Your task to perform on an android device: Open settings Image 0: 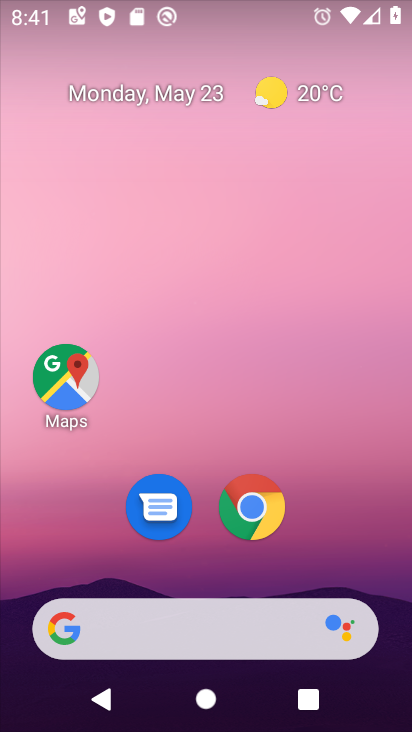
Step 0: drag from (378, 585) to (384, 4)
Your task to perform on an android device: Open settings Image 1: 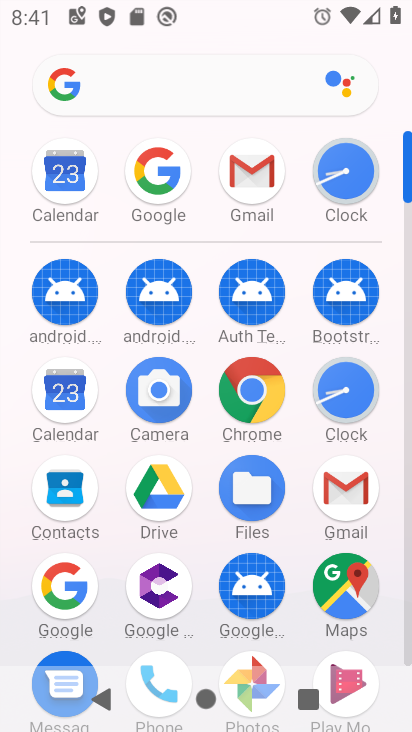
Step 1: click (408, 490)
Your task to perform on an android device: Open settings Image 2: 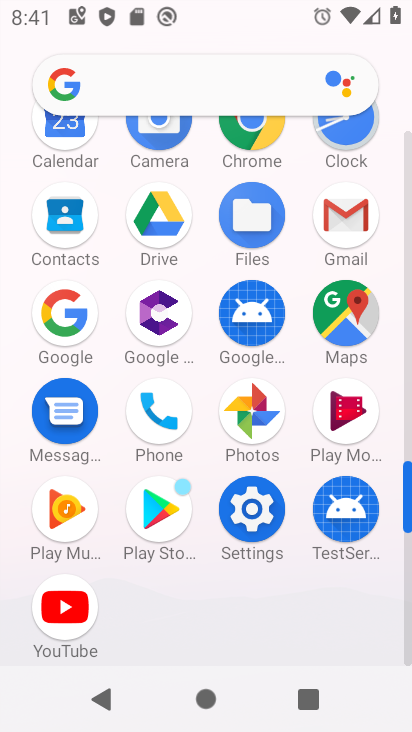
Step 2: click (247, 515)
Your task to perform on an android device: Open settings Image 3: 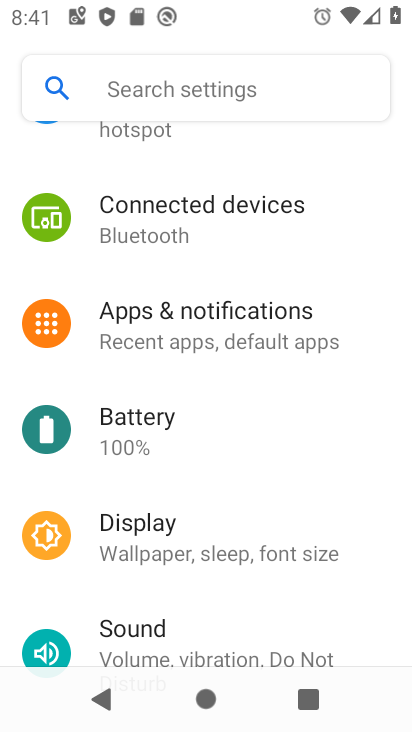
Step 3: task complete